Your task to perform on an android device: Go to Google maps Image 0: 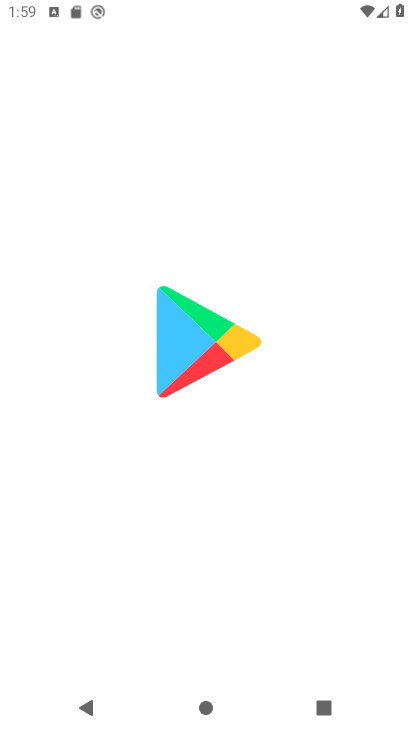
Step 0: click (129, 566)
Your task to perform on an android device: Go to Google maps Image 1: 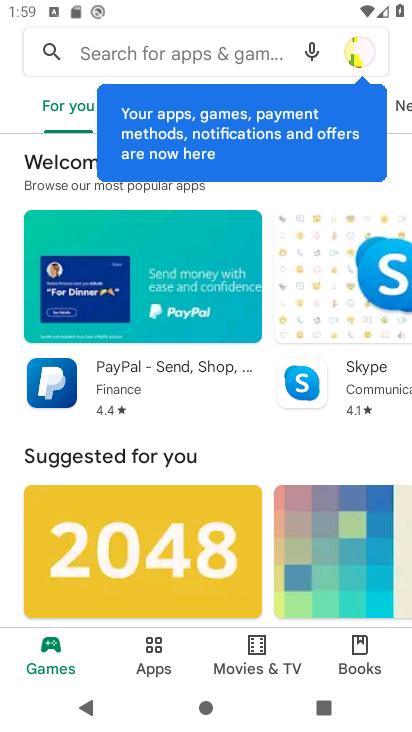
Step 1: press home button
Your task to perform on an android device: Go to Google maps Image 2: 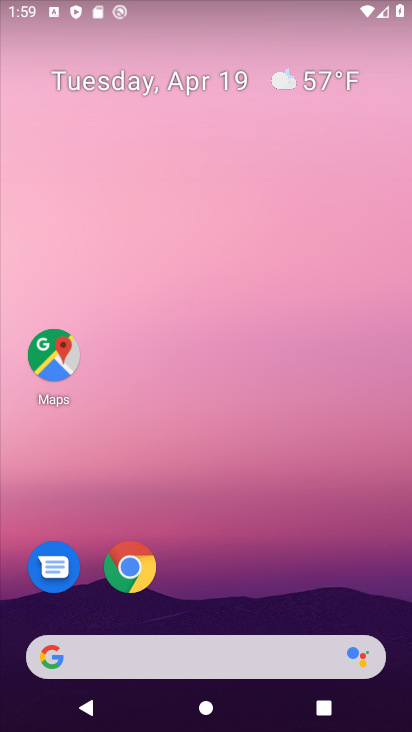
Step 2: click (49, 351)
Your task to perform on an android device: Go to Google maps Image 3: 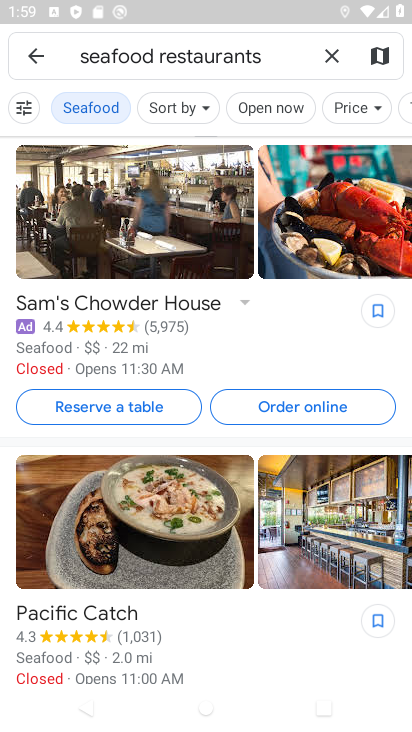
Step 3: task complete